Your task to perform on an android device: open app "Messages" Image 0: 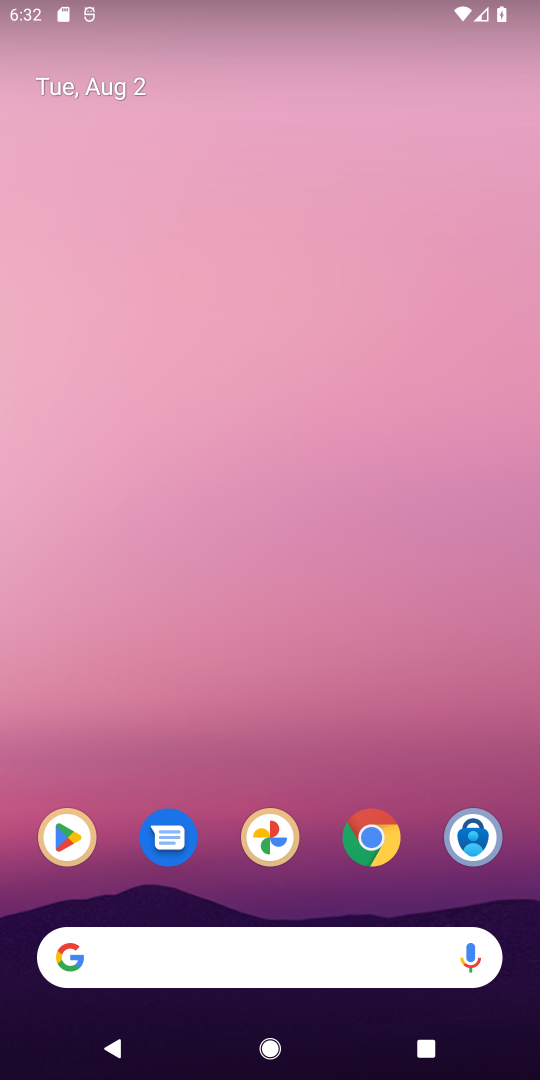
Step 0: click (177, 848)
Your task to perform on an android device: open app "Messages" Image 1: 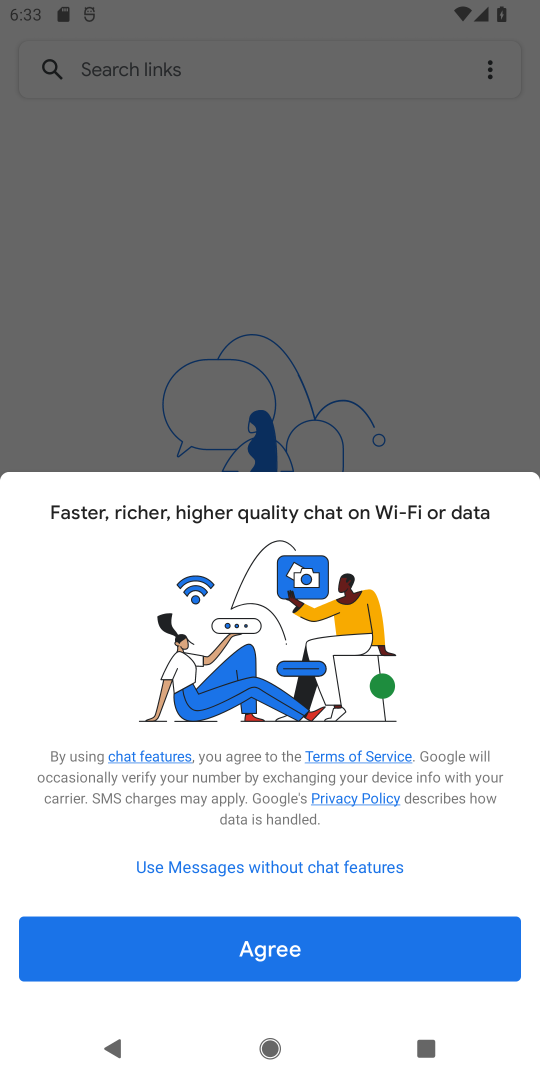
Step 1: task complete